Your task to perform on an android device: turn on location history Image 0: 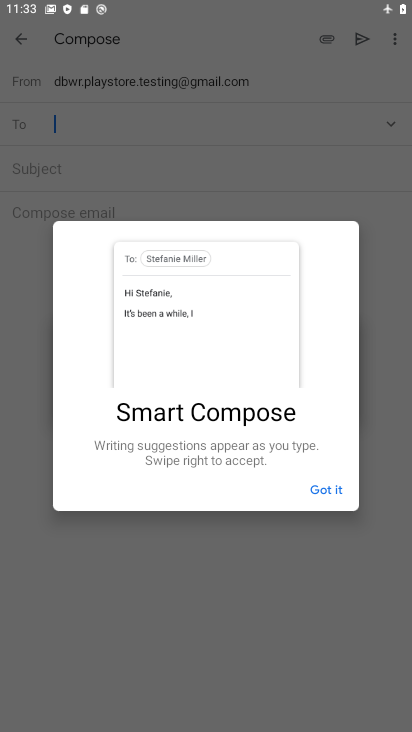
Step 0: press home button
Your task to perform on an android device: turn on location history Image 1: 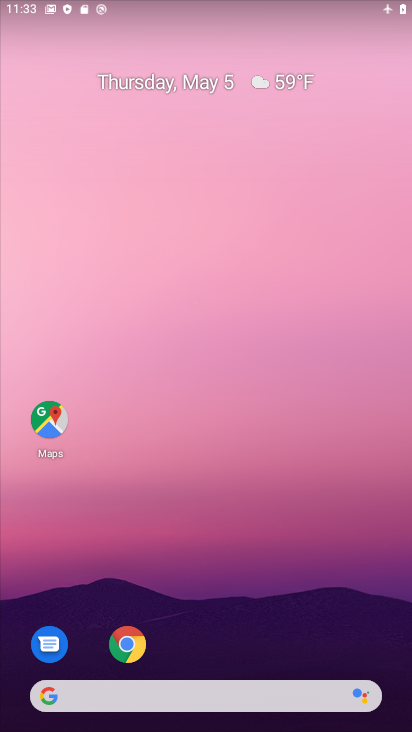
Step 1: drag from (204, 622) to (291, 70)
Your task to perform on an android device: turn on location history Image 2: 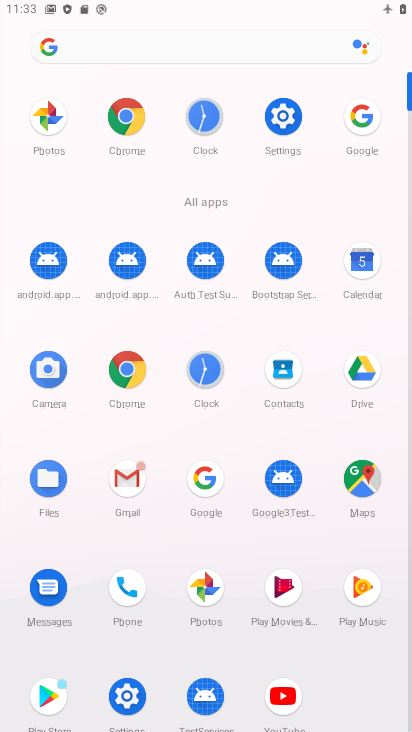
Step 2: click (288, 120)
Your task to perform on an android device: turn on location history Image 3: 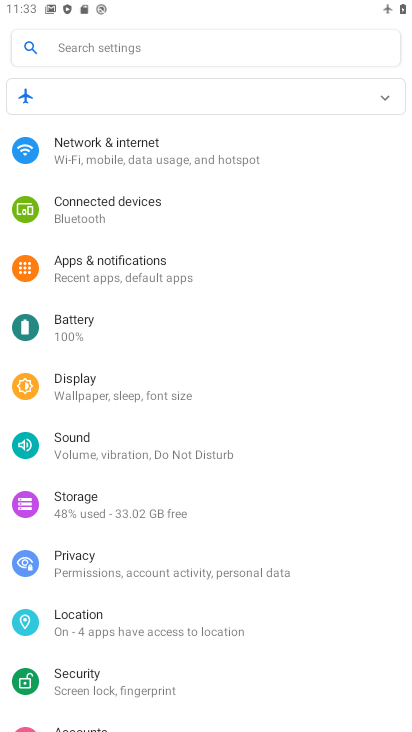
Step 3: click (129, 611)
Your task to perform on an android device: turn on location history Image 4: 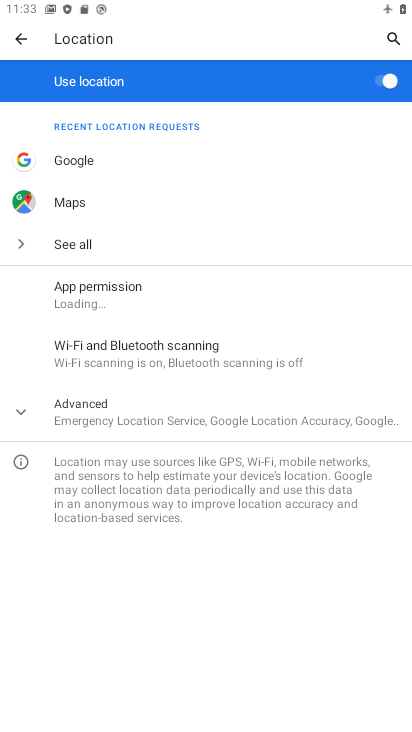
Step 4: click (148, 407)
Your task to perform on an android device: turn on location history Image 5: 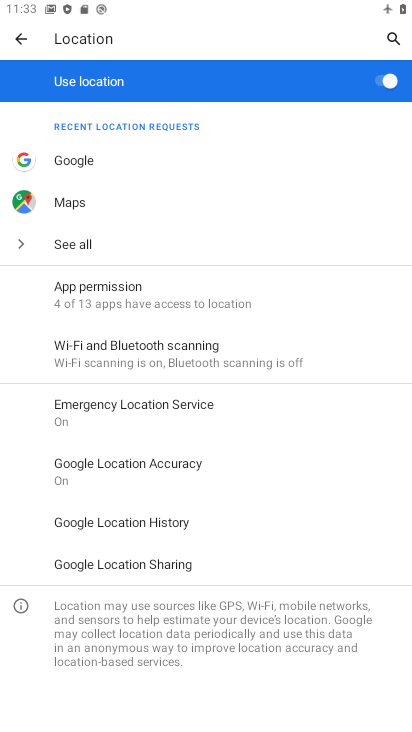
Step 5: click (144, 522)
Your task to perform on an android device: turn on location history Image 6: 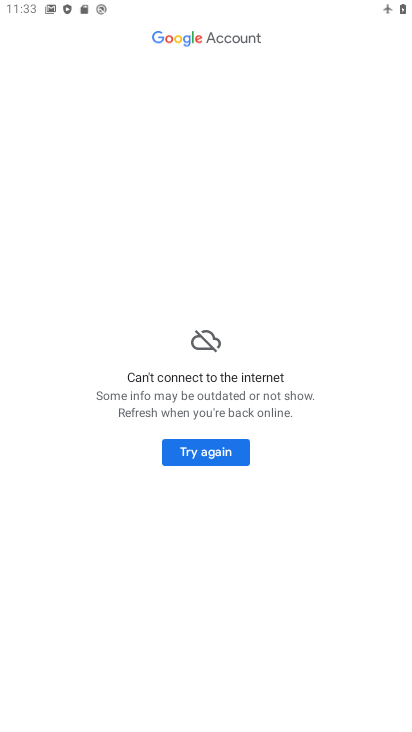
Step 6: click (196, 461)
Your task to perform on an android device: turn on location history Image 7: 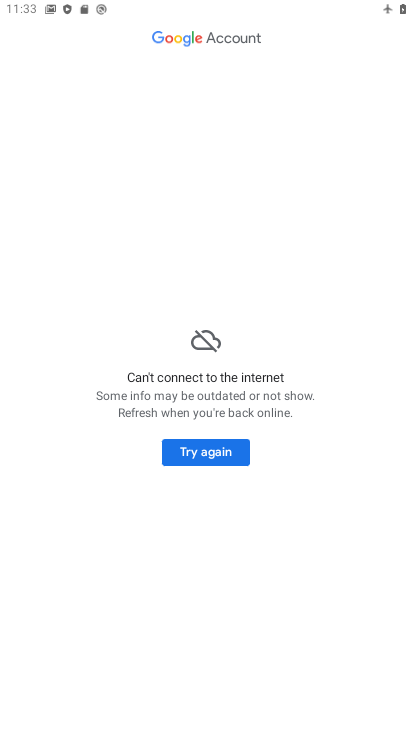
Step 7: task complete